Your task to perform on an android device: Search for flights from Tokyo to Seoul Image 0: 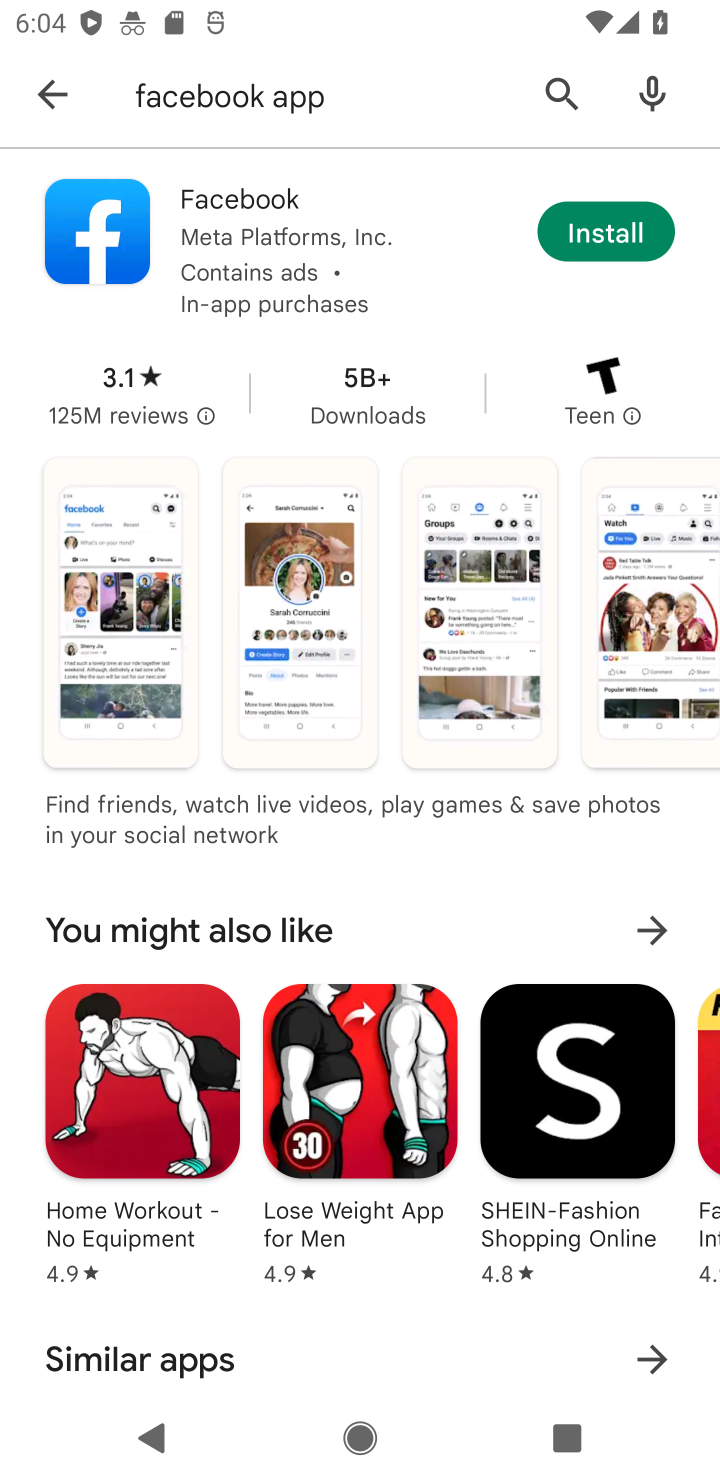
Step 0: press home button
Your task to perform on an android device: Search for flights from Tokyo to Seoul Image 1: 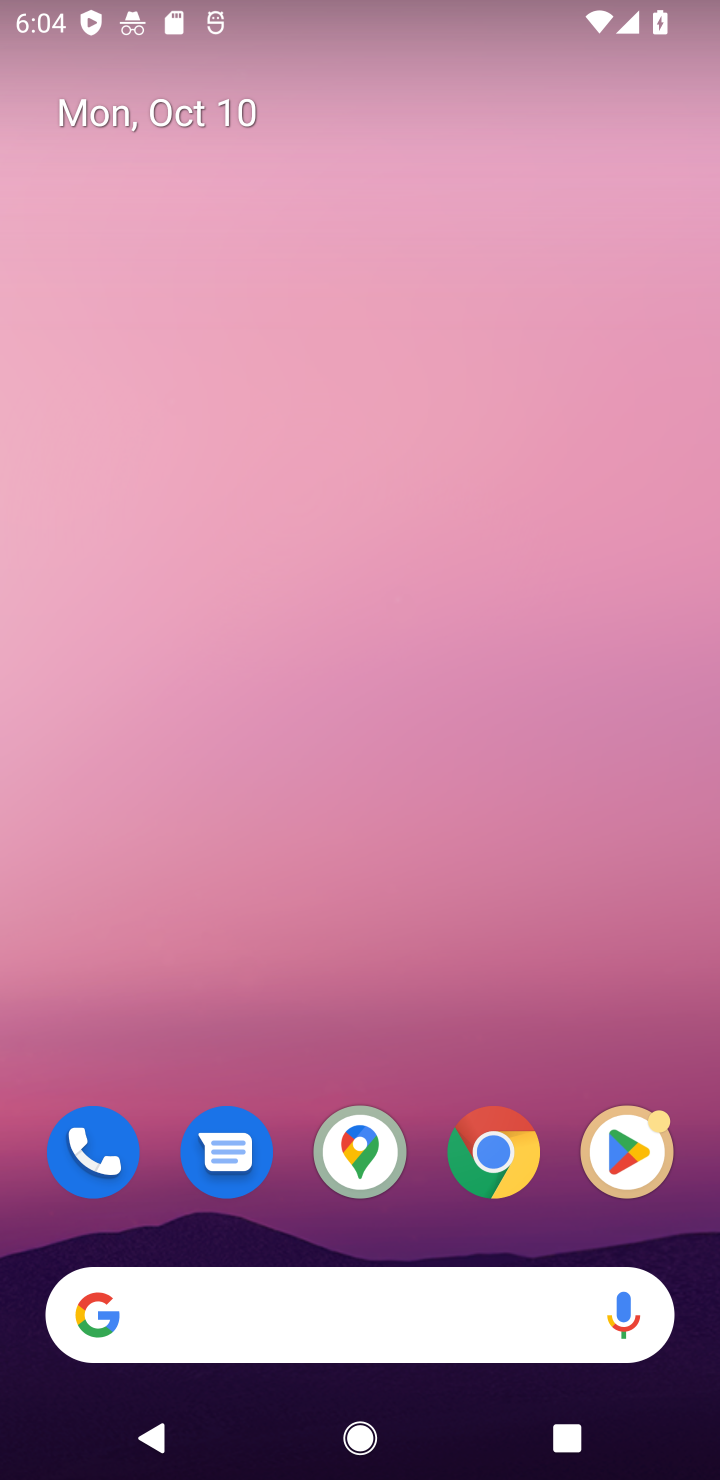
Step 1: click (494, 1155)
Your task to perform on an android device: Search for flights from Tokyo to Seoul Image 2: 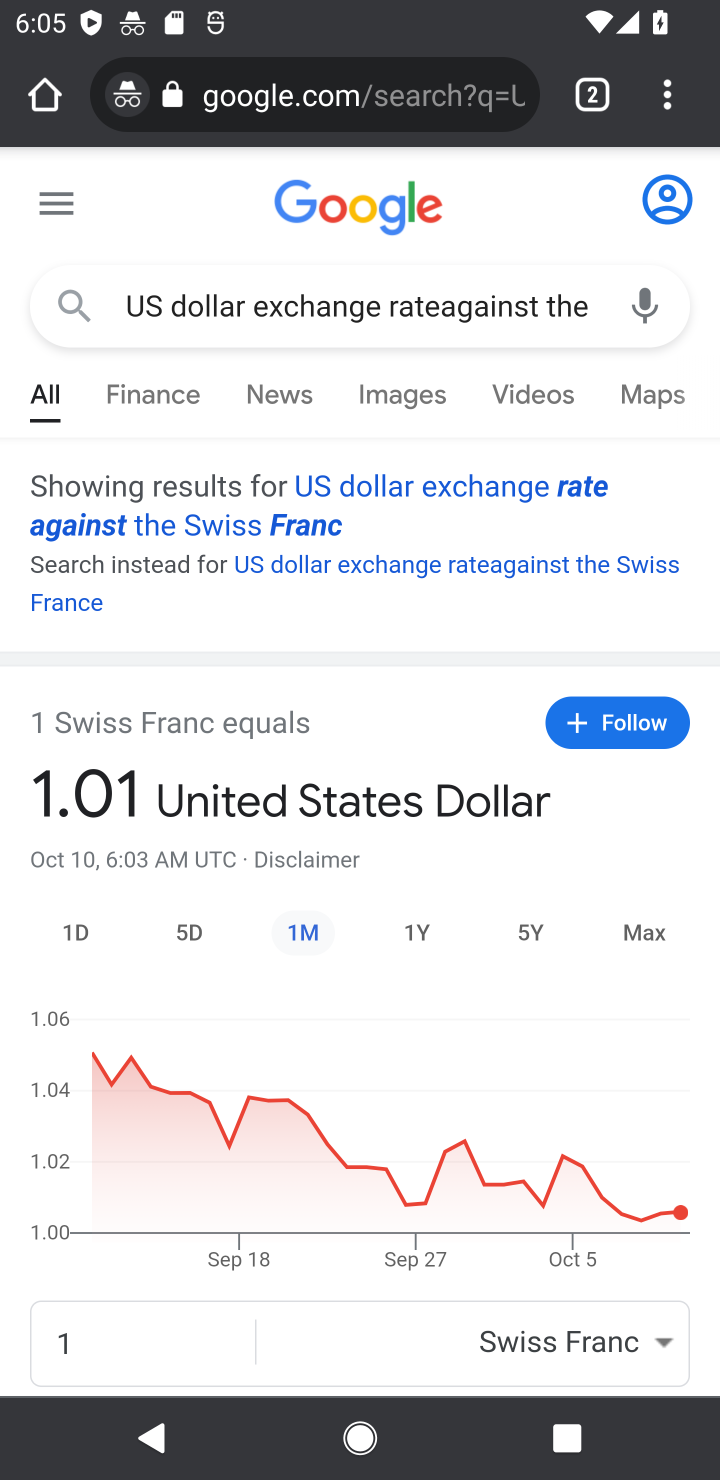
Step 2: click (433, 110)
Your task to perform on an android device: Search for flights from Tokyo to Seoul Image 3: 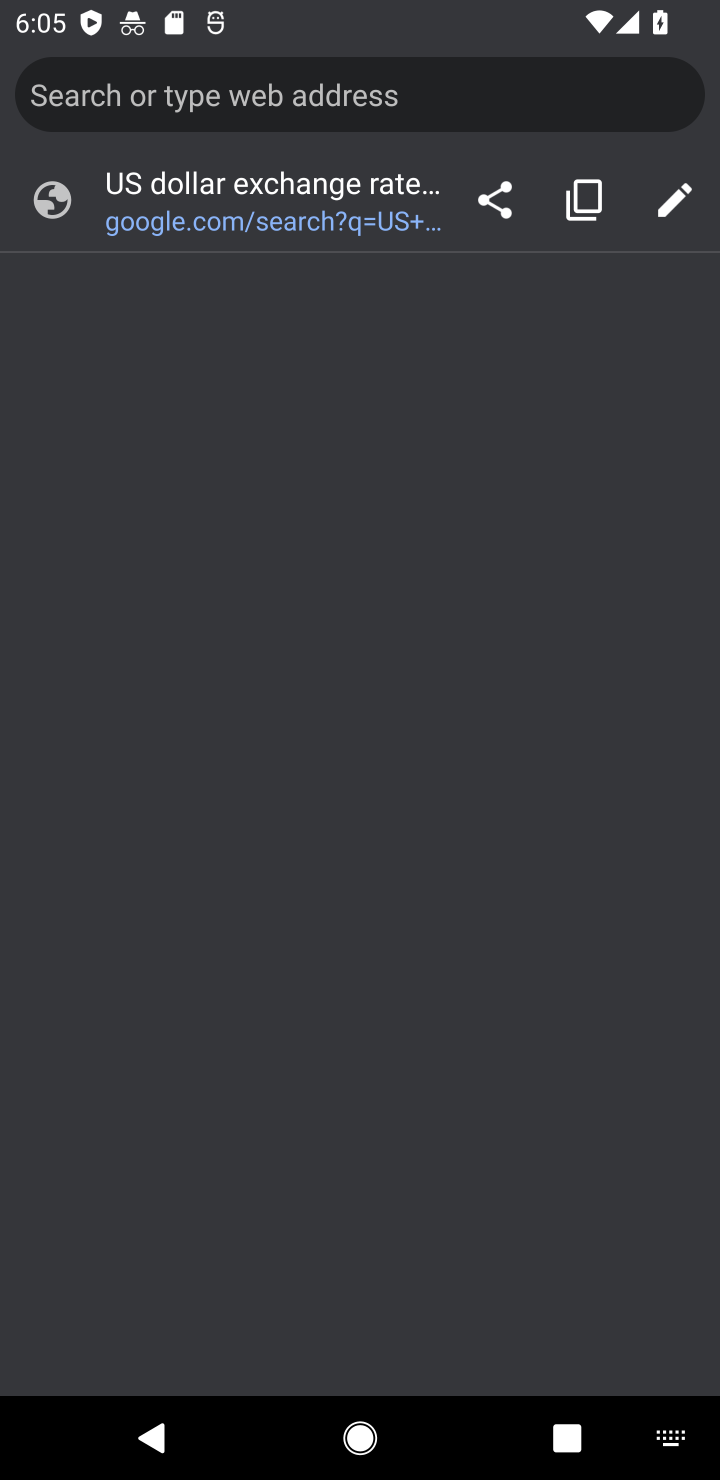
Step 3: type "flights from Tokyo to Seoul"
Your task to perform on an android device: Search for flights from Tokyo to Seoul Image 4: 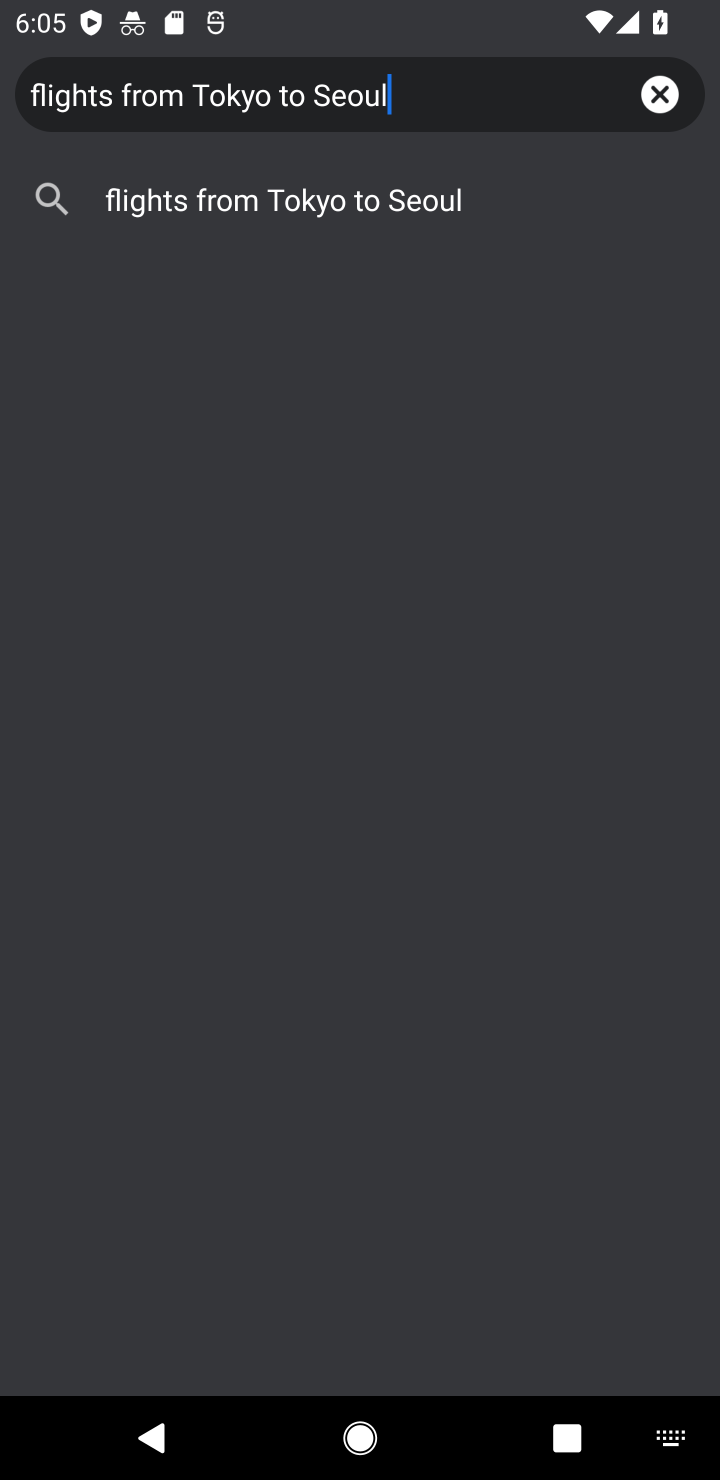
Step 4: click (450, 221)
Your task to perform on an android device: Search for flights from Tokyo to Seoul Image 5: 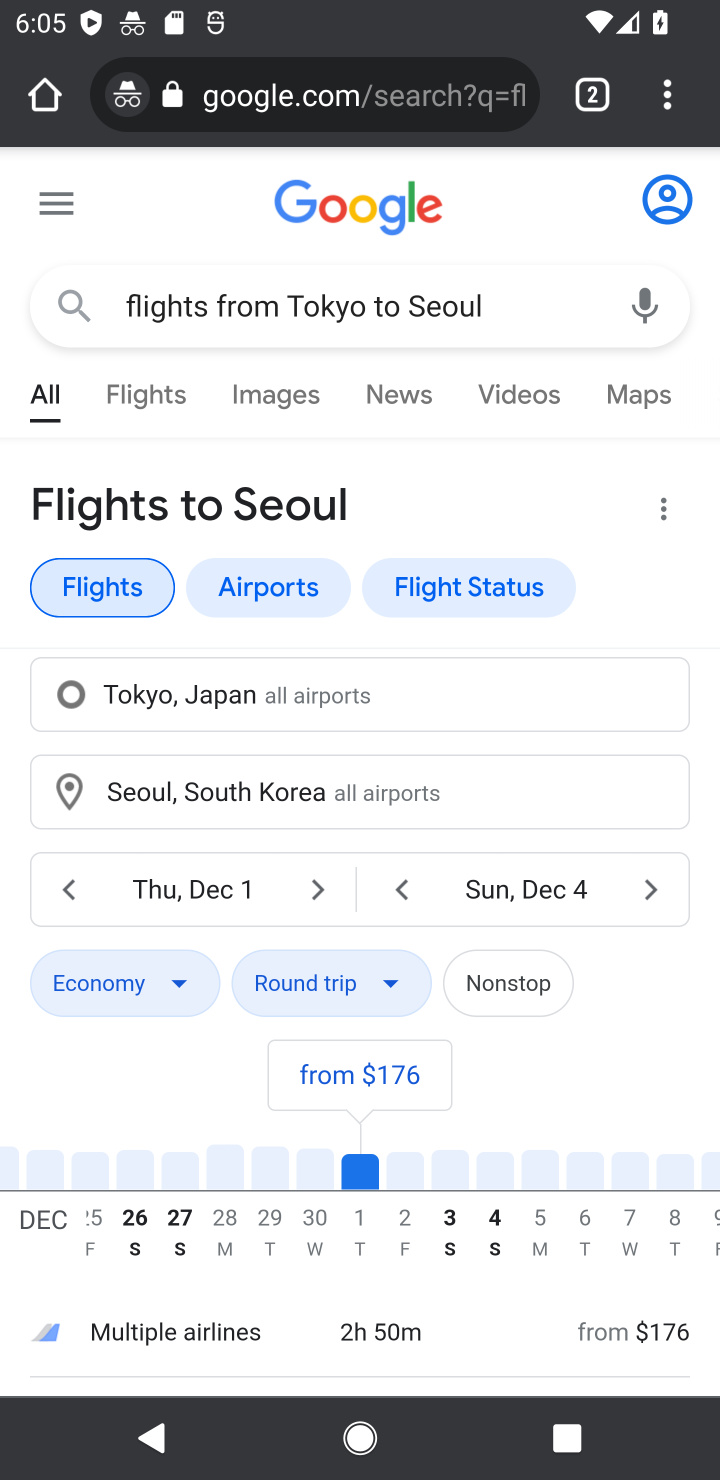
Step 5: task complete